Your task to perform on an android device: turn off smart reply in the gmail app Image 0: 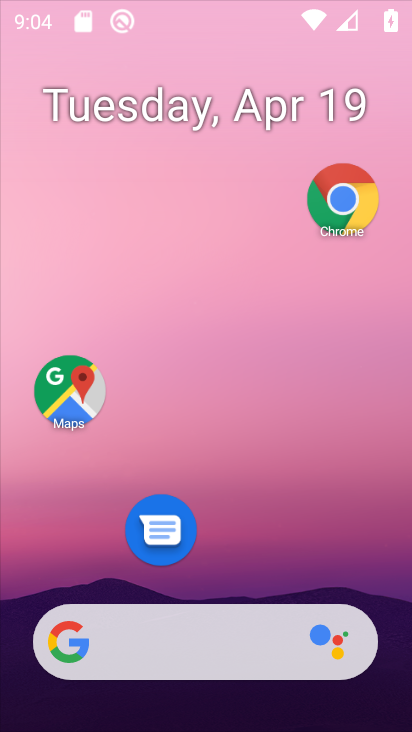
Step 0: click (274, 40)
Your task to perform on an android device: turn off smart reply in the gmail app Image 1: 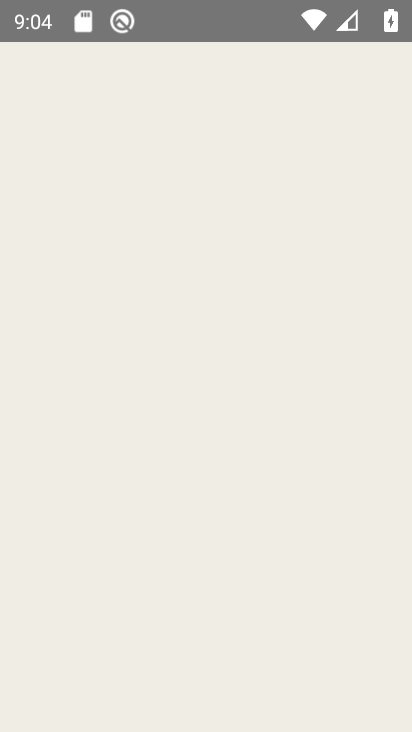
Step 1: press home button
Your task to perform on an android device: turn off smart reply in the gmail app Image 2: 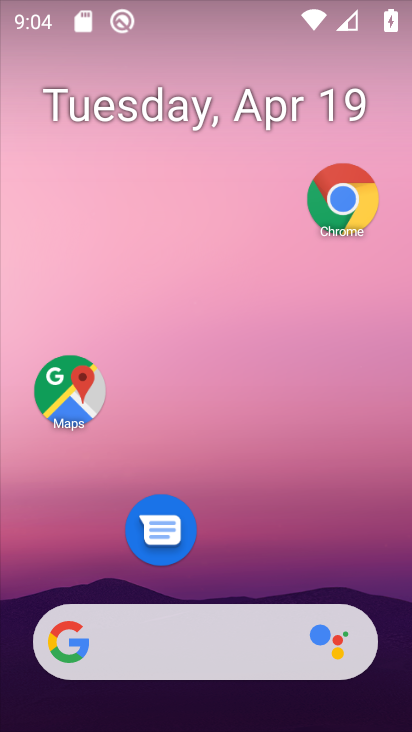
Step 2: drag from (212, 579) to (241, 124)
Your task to perform on an android device: turn off smart reply in the gmail app Image 3: 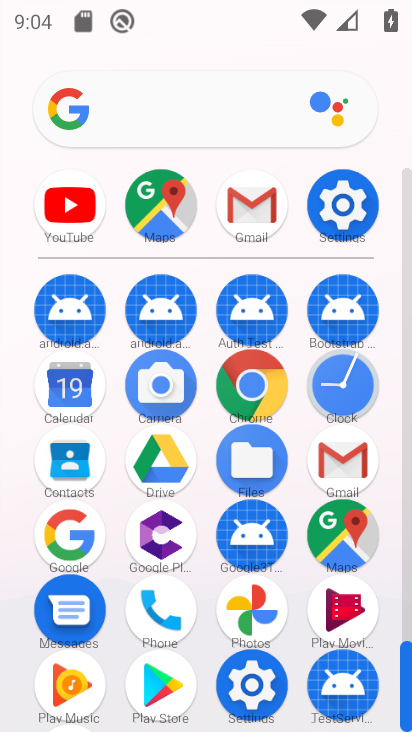
Step 3: click (332, 461)
Your task to perform on an android device: turn off smart reply in the gmail app Image 4: 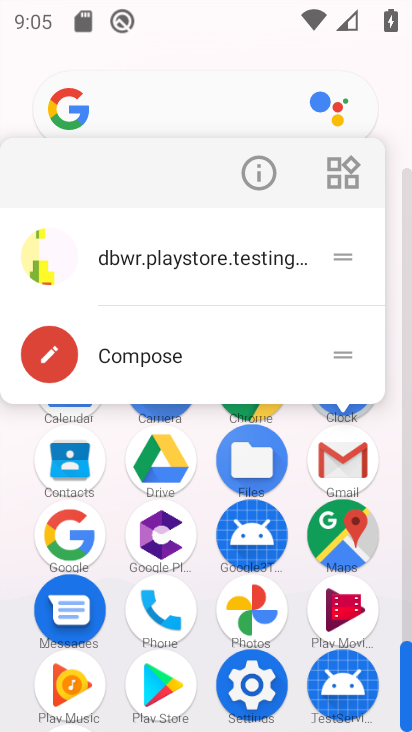
Step 4: click (256, 160)
Your task to perform on an android device: turn off smart reply in the gmail app Image 5: 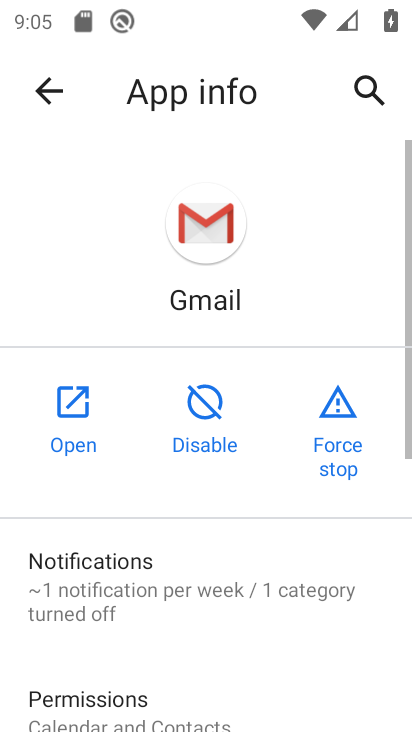
Step 5: click (94, 421)
Your task to perform on an android device: turn off smart reply in the gmail app Image 6: 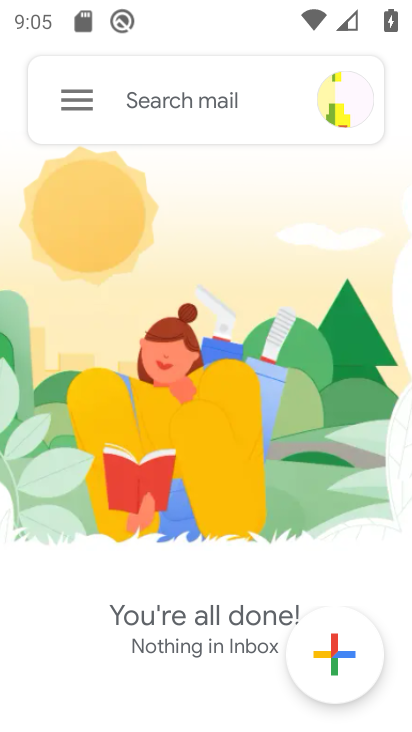
Step 6: click (68, 97)
Your task to perform on an android device: turn off smart reply in the gmail app Image 7: 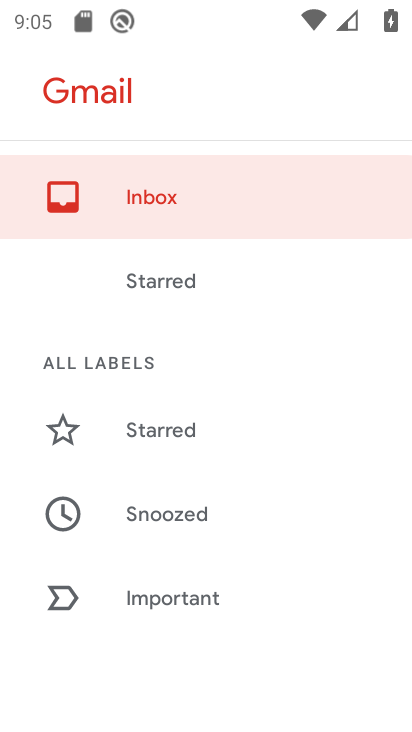
Step 7: drag from (188, 603) to (233, 7)
Your task to perform on an android device: turn off smart reply in the gmail app Image 8: 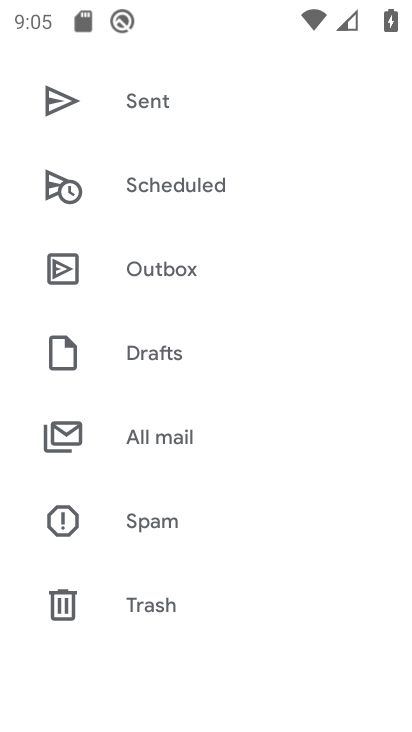
Step 8: drag from (162, 583) to (299, 40)
Your task to perform on an android device: turn off smart reply in the gmail app Image 9: 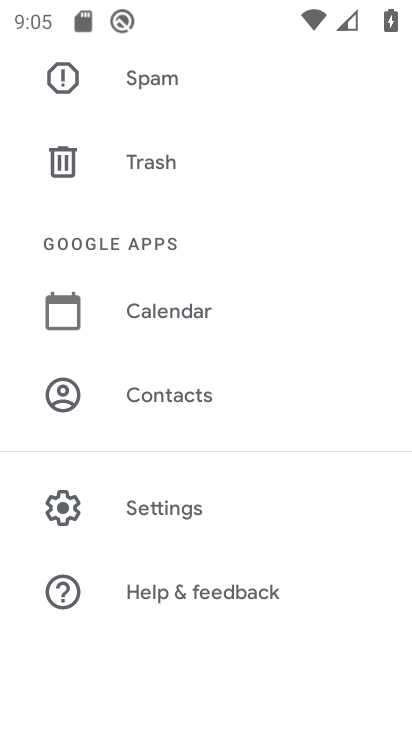
Step 9: click (143, 516)
Your task to perform on an android device: turn off smart reply in the gmail app Image 10: 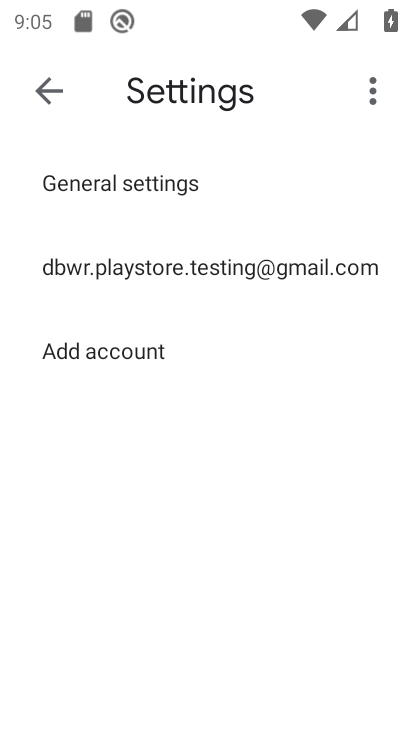
Step 10: click (213, 272)
Your task to perform on an android device: turn off smart reply in the gmail app Image 11: 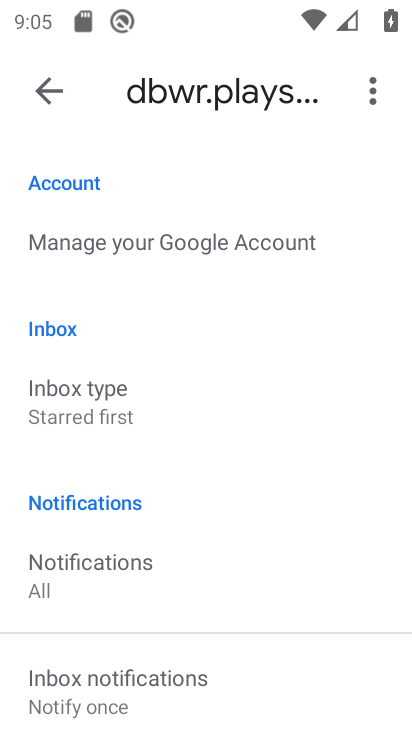
Step 11: drag from (162, 485) to (244, 0)
Your task to perform on an android device: turn off smart reply in the gmail app Image 12: 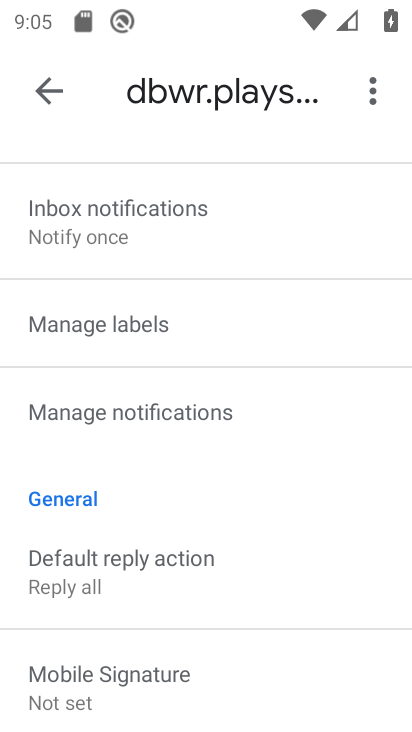
Step 12: drag from (229, 603) to (307, 209)
Your task to perform on an android device: turn off smart reply in the gmail app Image 13: 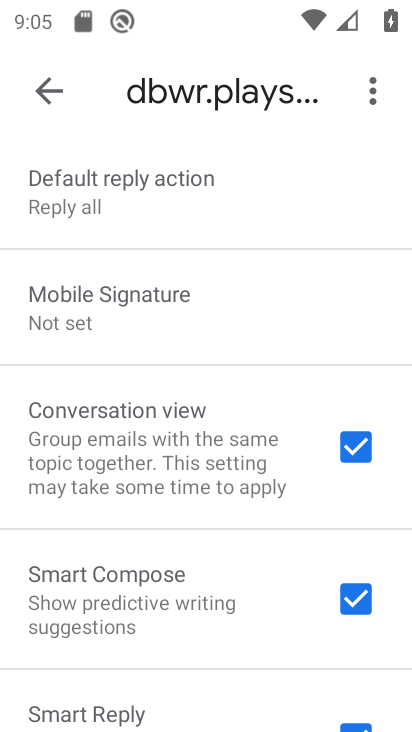
Step 13: drag from (124, 644) to (287, 7)
Your task to perform on an android device: turn off smart reply in the gmail app Image 14: 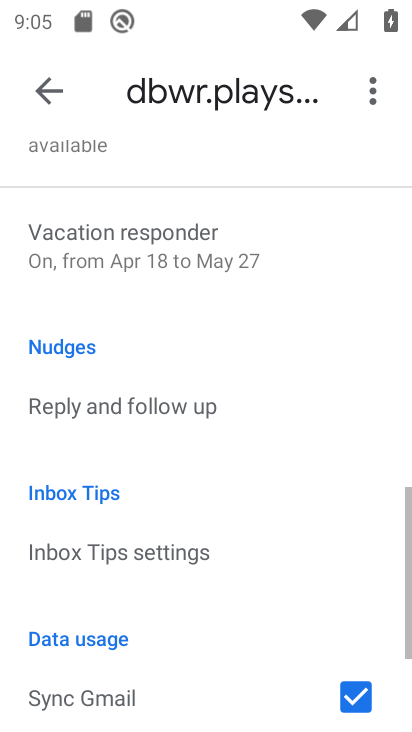
Step 14: drag from (175, 618) to (252, 232)
Your task to perform on an android device: turn off smart reply in the gmail app Image 15: 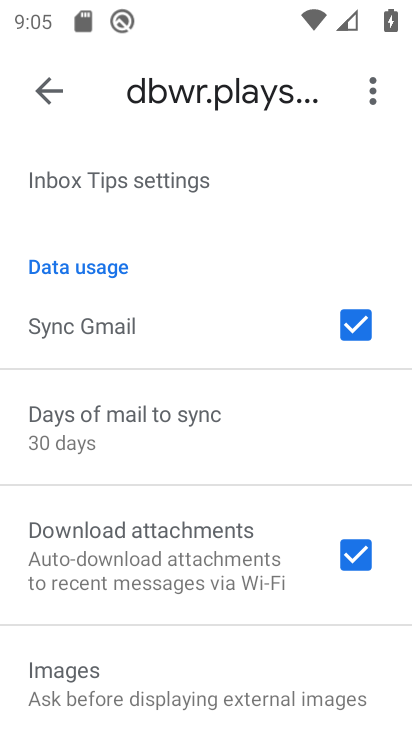
Step 15: drag from (222, 571) to (288, 242)
Your task to perform on an android device: turn off smart reply in the gmail app Image 16: 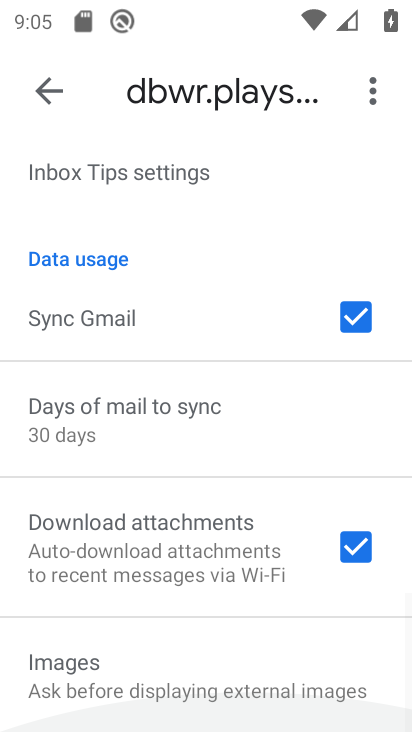
Step 16: drag from (300, 197) to (327, 725)
Your task to perform on an android device: turn off smart reply in the gmail app Image 17: 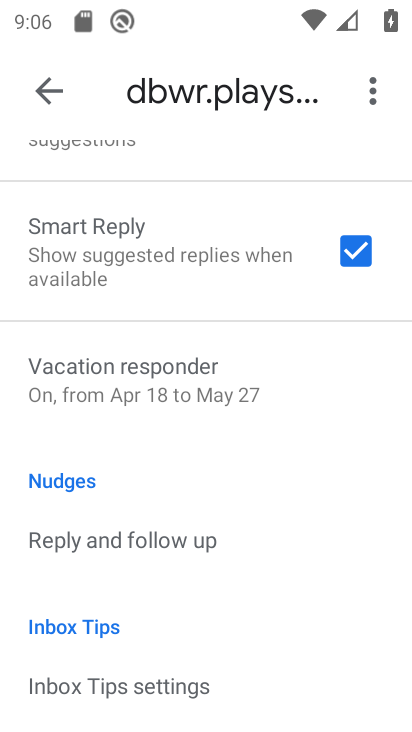
Step 17: drag from (221, 625) to (299, 240)
Your task to perform on an android device: turn off smart reply in the gmail app Image 18: 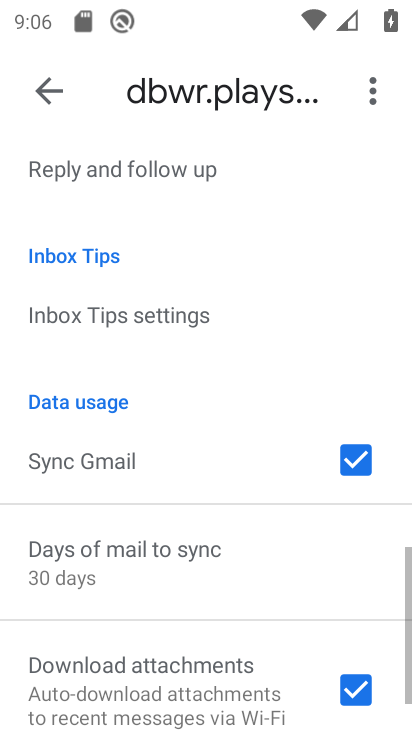
Step 18: drag from (199, 621) to (236, 351)
Your task to perform on an android device: turn off smart reply in the gmail app Image 19: 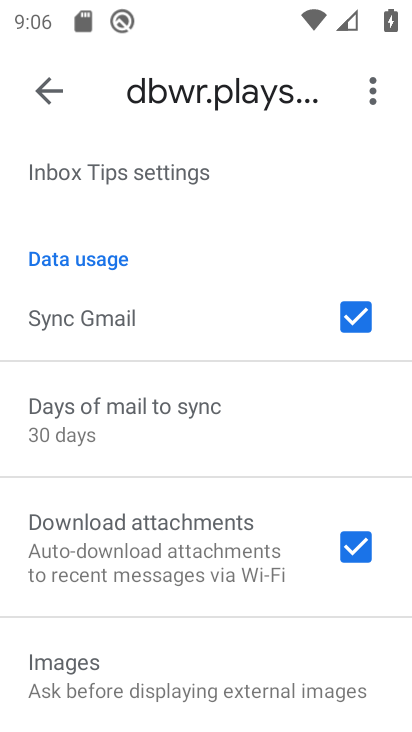
Step 19: drag from (222, 243) to (196, 630)
Your task to perform on an android device: turn off smart reply in the gmail app Image 20: 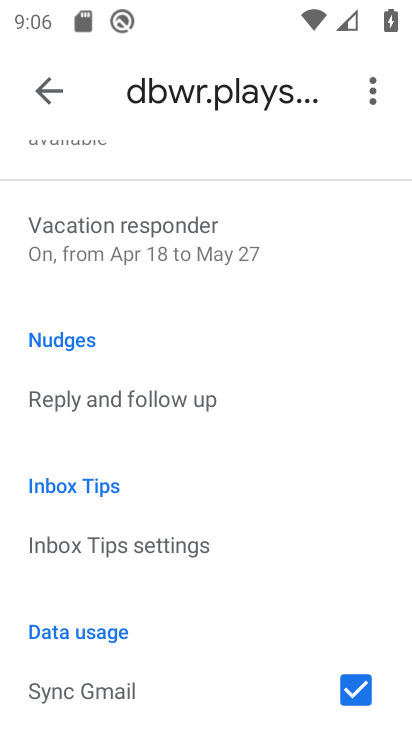
Step 20: drag from (271, 289) to (257, 719)
Your task to perform on an android device: turn off smart reply in the gmail app Image 21: 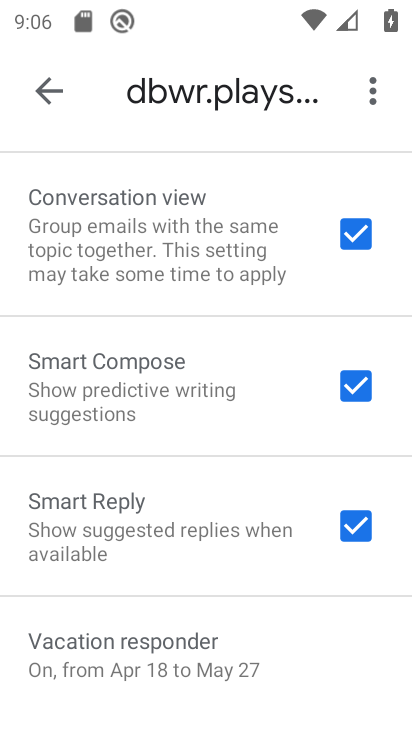
Step 21: click (321, 531)
Your task to perform on an android device: turn off smart reply in the gmail app Image 22: 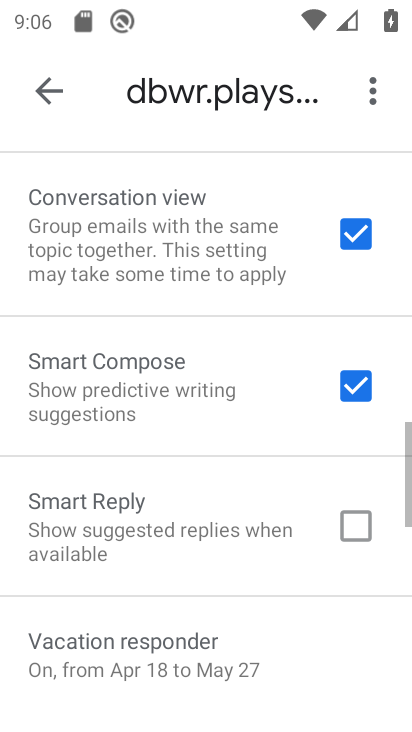
Step 22: task complete